Your task to perform on an android device: change the clock style Image 0: 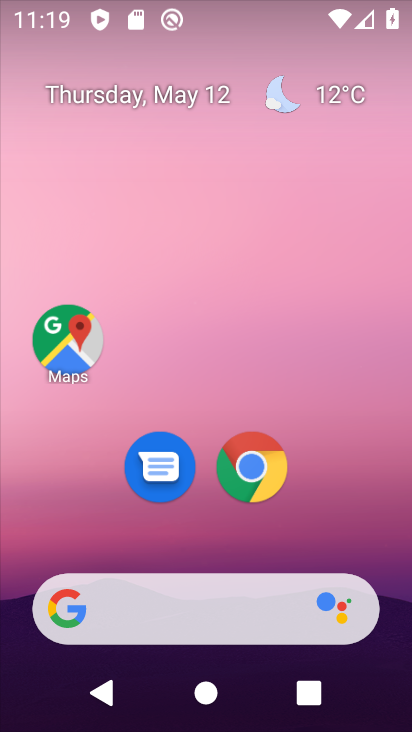
Step 0: drag from (356, 533) to (260, 49)
Your task to perform on an android device: change the clock style Image 1: 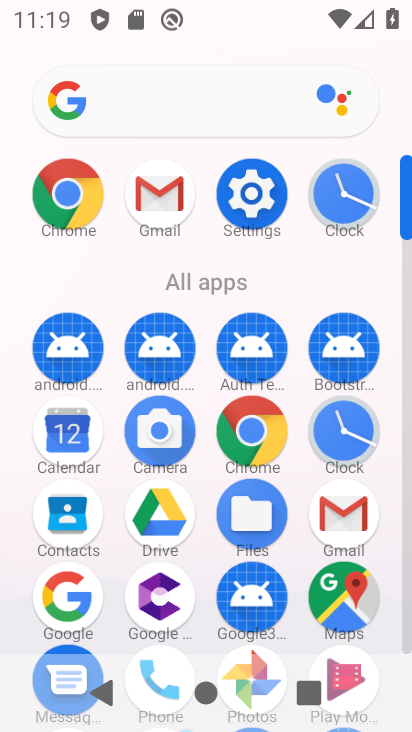
Step 1: click (342, 427)
Your task to perform on an android device: change the clock style Image 2: 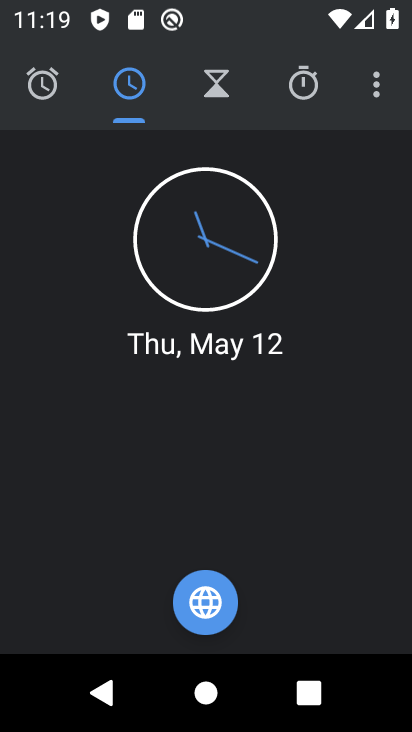
Step 2: drag from (373, 91) to (188, 153)
Your task to perform on an android device: change the clock style Image 3: 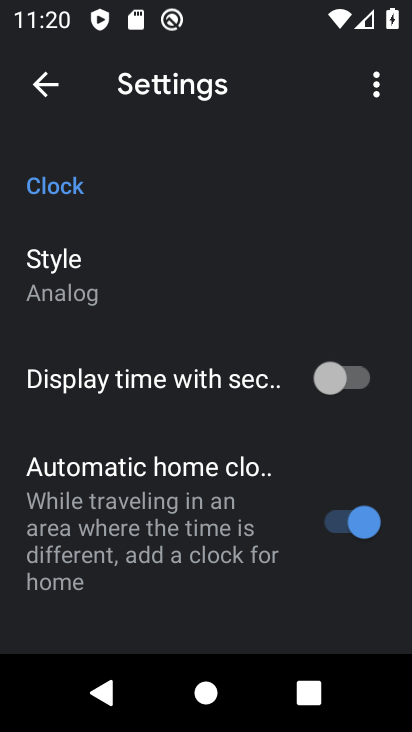
Step 3: click (90, 279)
Your task to perform on an android device: change the clock style Image 4: 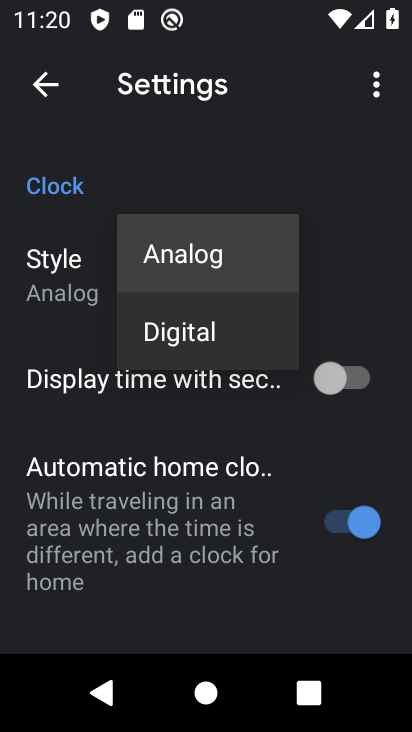
Step 4: click (186, 336)
Your task to perform on an android device: change the clock style Image 5: 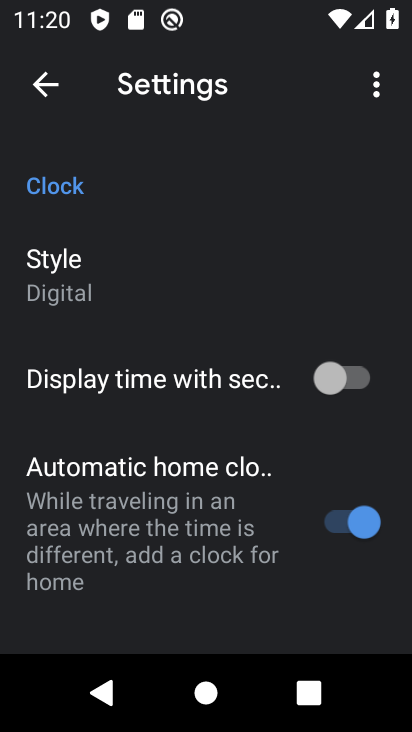
Step 5: task complete